Your task to perform on an android device: Open the map Image 0: 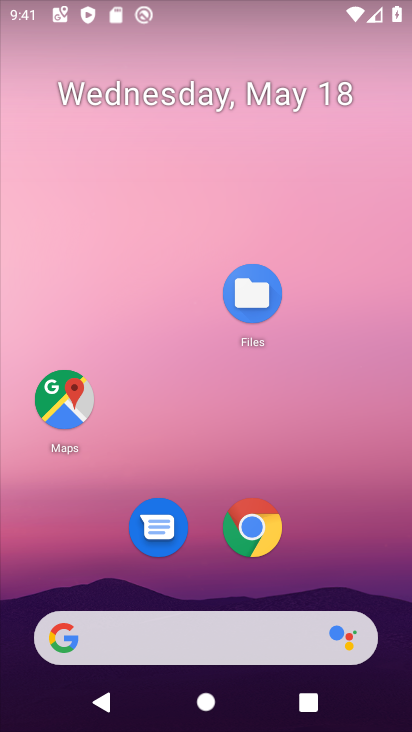
Step 0: click (47, 404)
Your task to perform on an android device: Open the map Image 1: 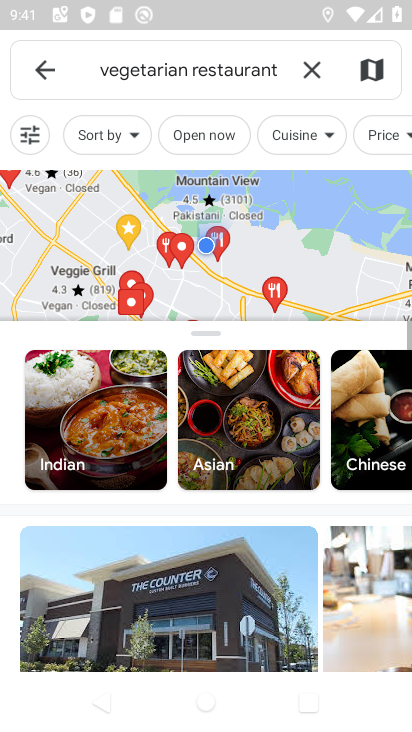
Step 1: task complete